Your task to perform on an android device: Open Google Chrome and open the bookmarks view Image 0: 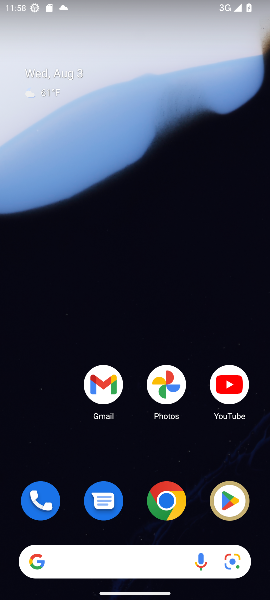
Step 0: click (157, 499)
Your task to perform on an android device: Open Google Chrome and open the bookmarks view Image 1: 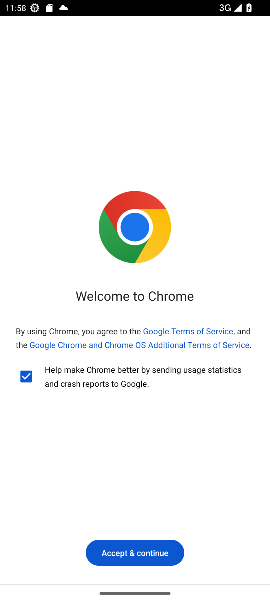
Step 1: click (147, 548)
Your task to perform on an android device: Open Google Chrome and open the bookmarks view Image 2: 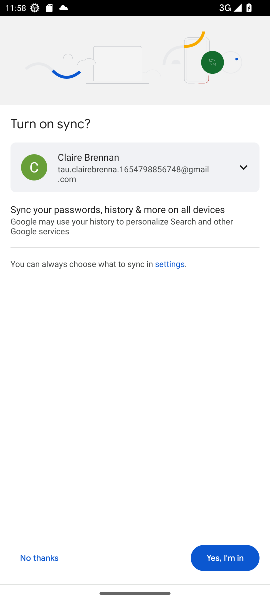
Step 2: click (214, 562)
Your task to perform on an android device: Open Google Chrome and open the bookmarks view Image 3: 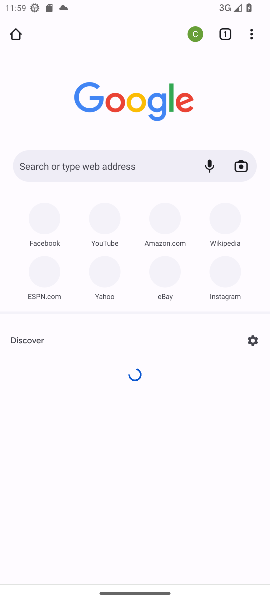
Step 3: click (250, 31)
Your task to perform on an android device: Open Google Chrome and open the bookmarks view Image 4: 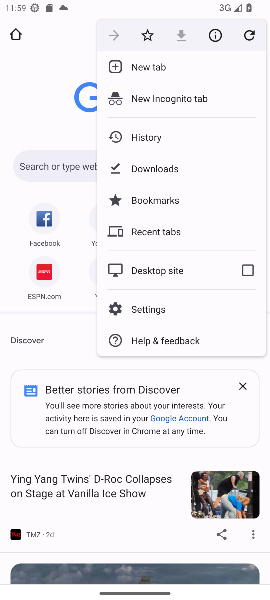
Step 4: click (157, 202)
Your task to perform on an android device: Open Google Chrome and open the bookmarks view Image 5: 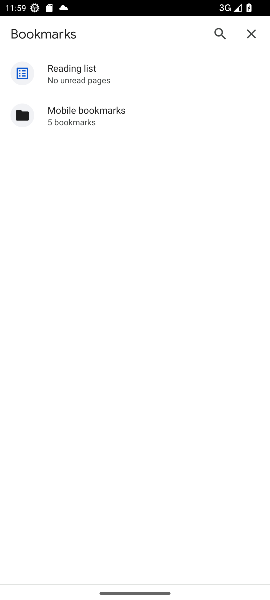
Step 5: task complete